Your task to perform on an android device: uninstall "AliExpress" Image 0: 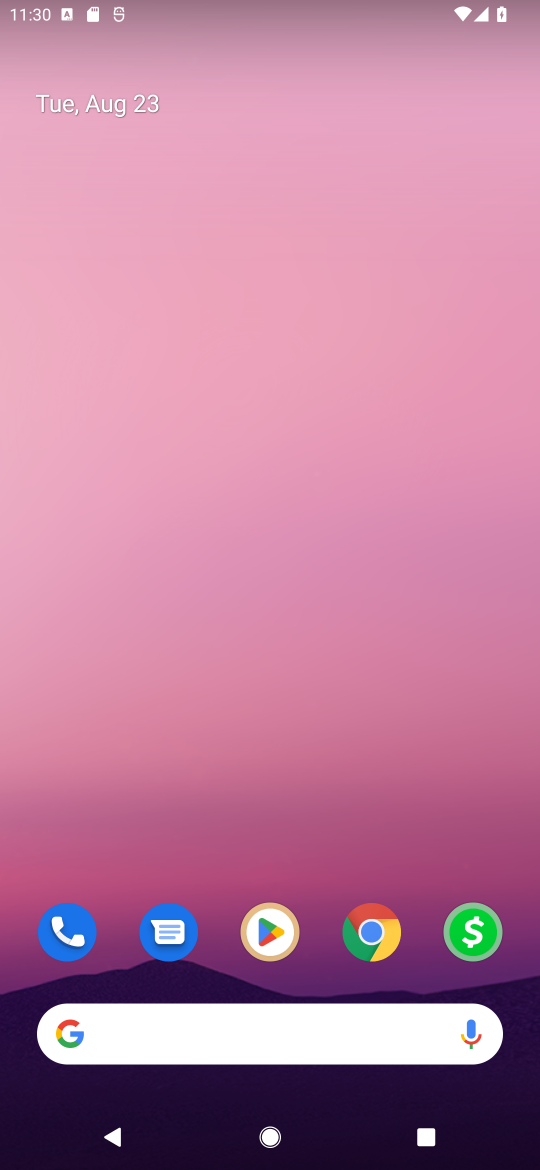
Step 0: click (257, 933)
Your task to perform on an android device: uninstall "AliExpress" Image 1: 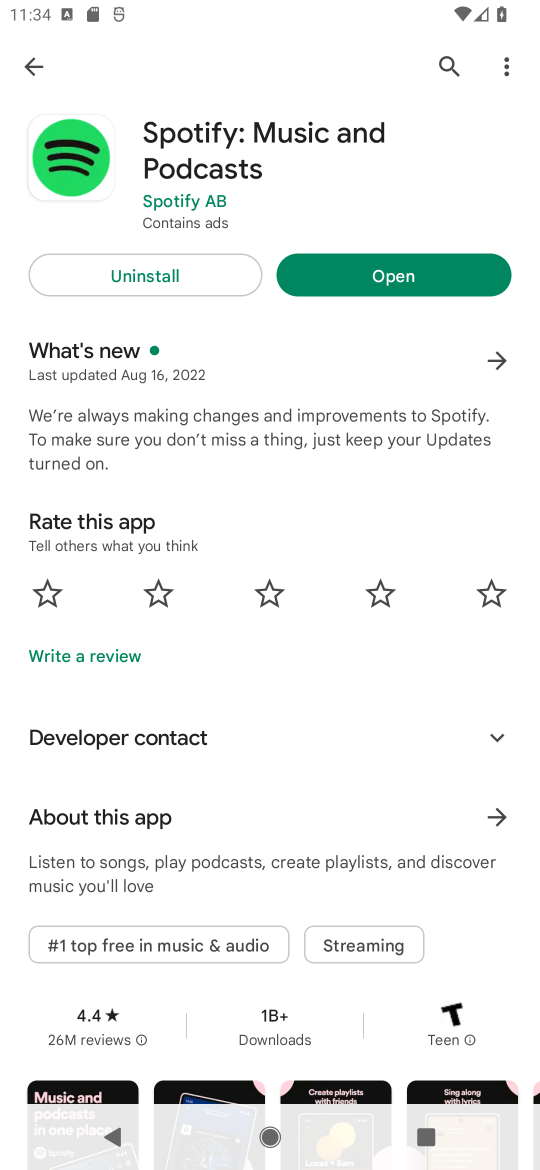
Step 1: click (455, 66)
Your task to perform on an android device: uninstall "AliExpress" Image 2: 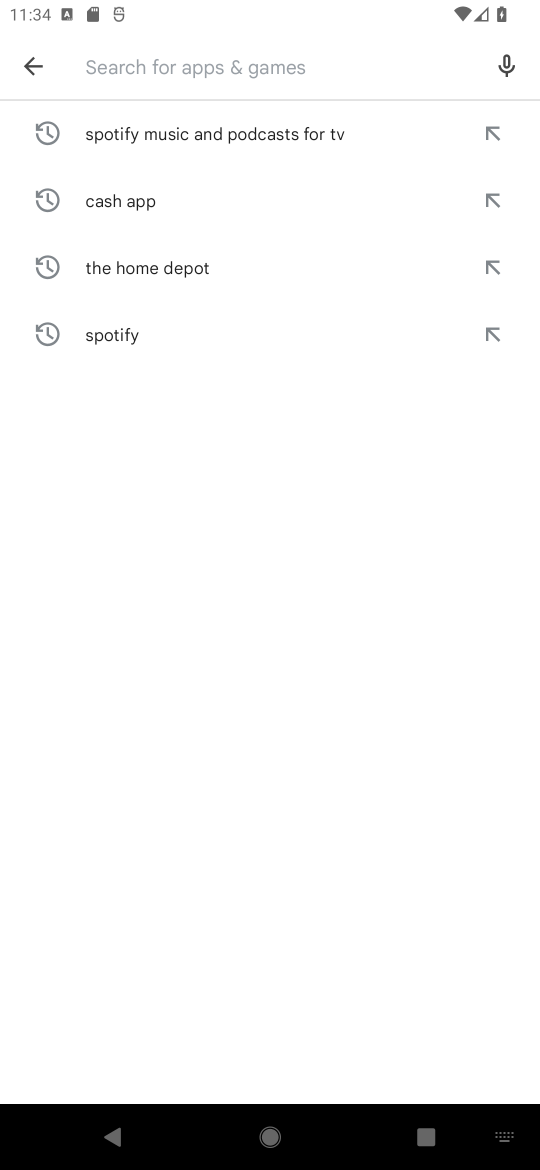
Step 2: type "aliexpress"
Your task to perform on an android device: uninstall "AliExpress" Image 3: 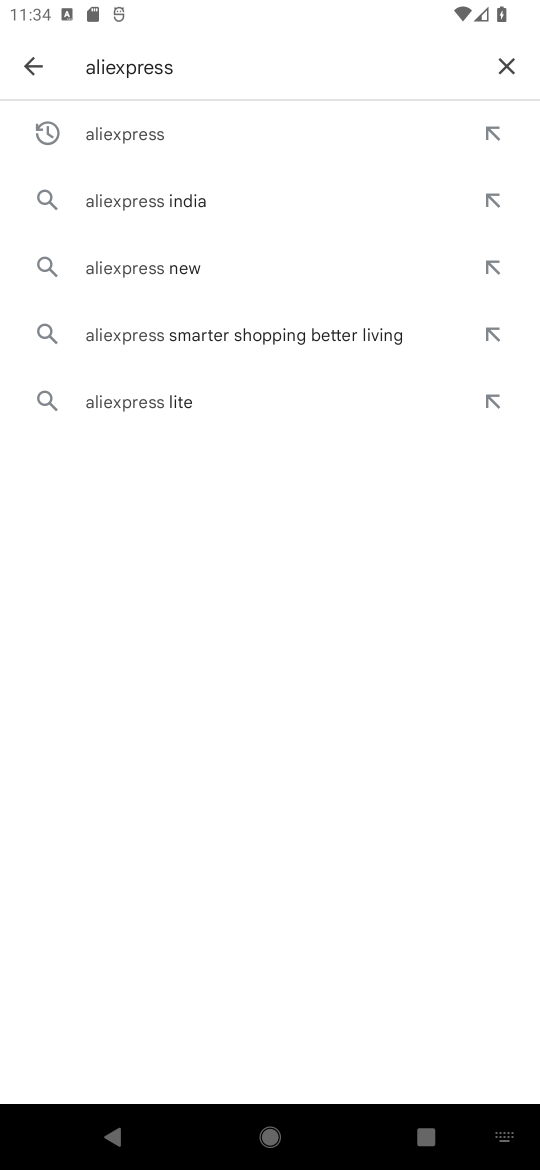
Step 3: click (126, 117)
Your task to perform on an android device: uninstall "AliExpress" Image 4: 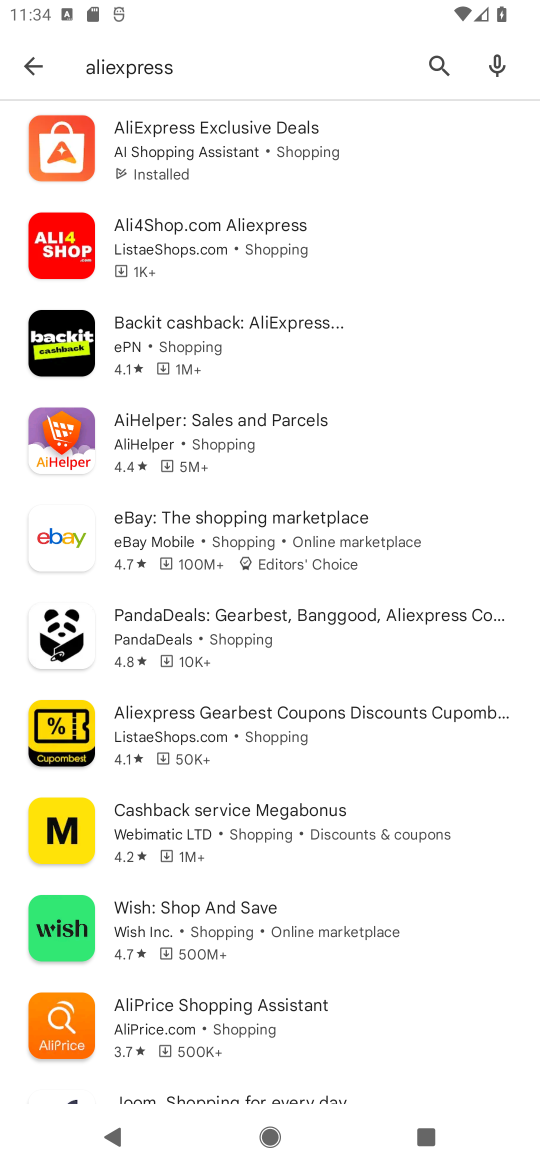
Step 4: click (348, 58)
Your task to perform on an android device: uninstall "AliExpress" Image 5: 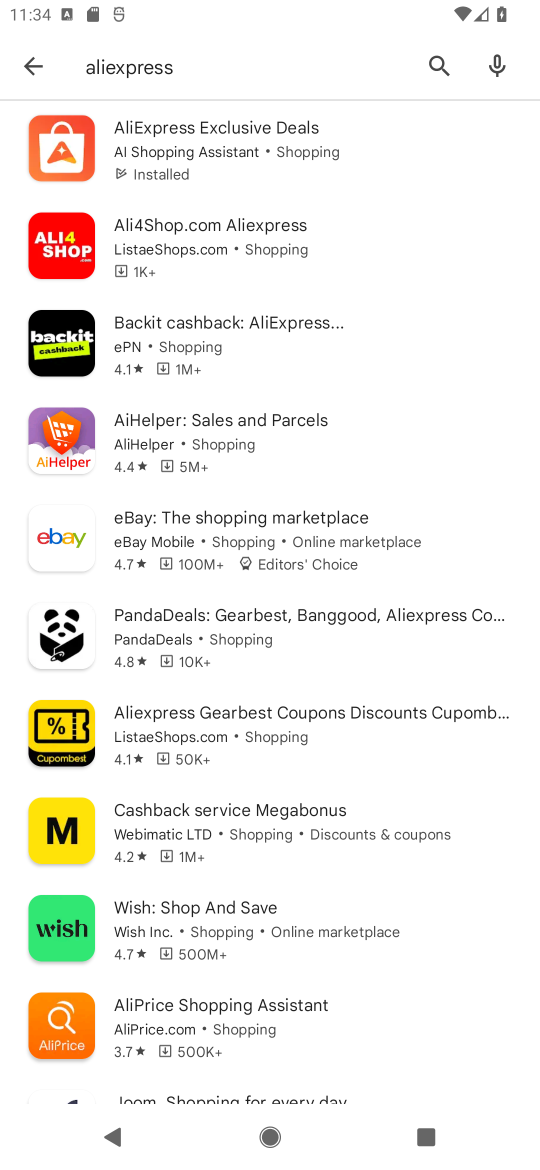
Step 5: click (224, 144)
Your task to perform on an android device: uninstall "AliExpress" Image 6: 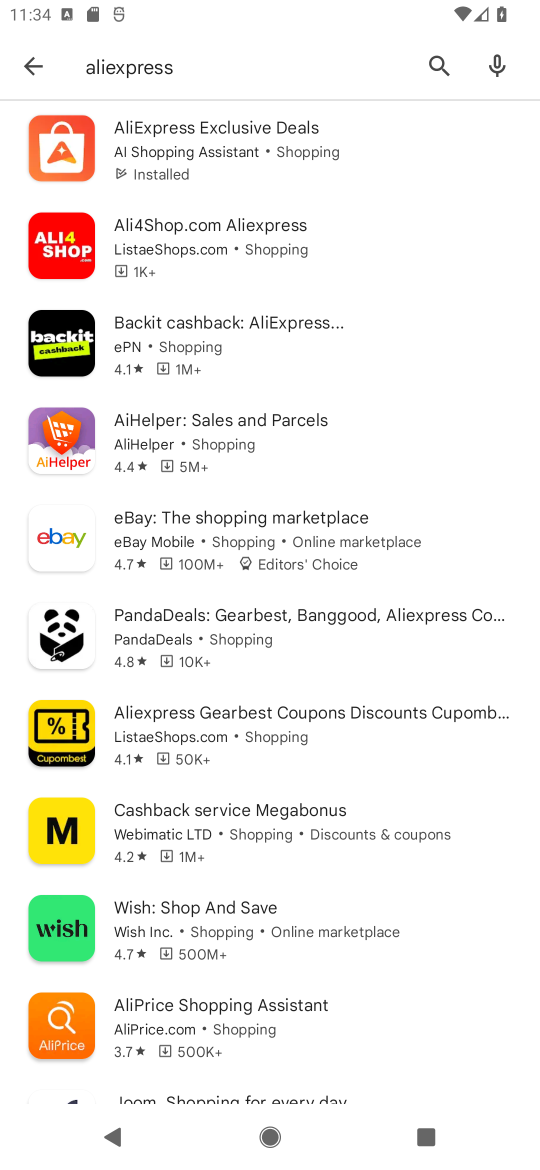
Step 6: click (224, 144)
Your task to perform on an android device: uninstall "AliExpress" Image 7: 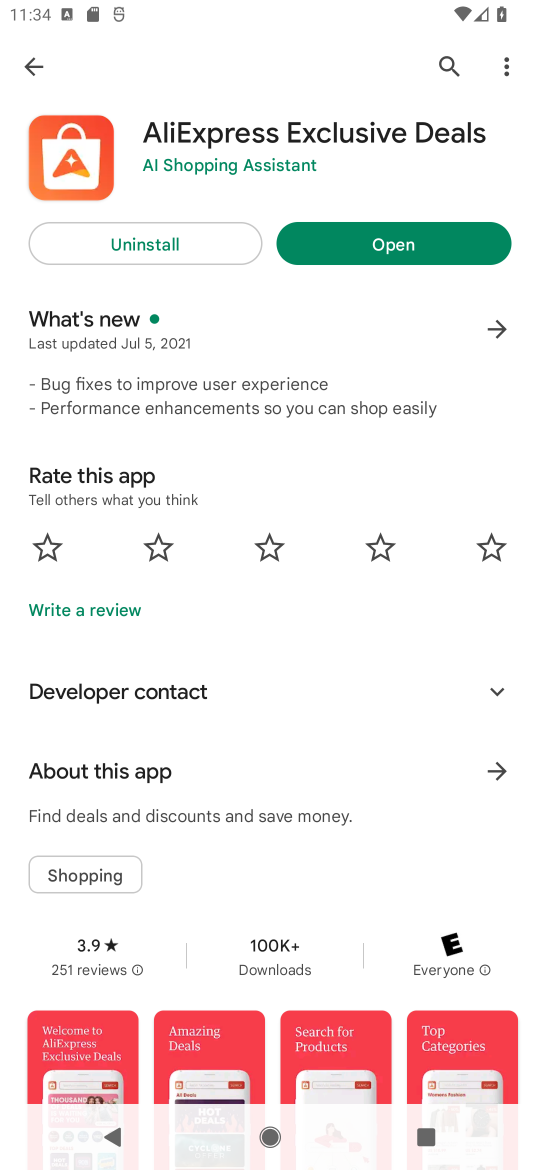
Step 7: click (182, 233)
Your task to perform on an android device: uninstall "AliExpress" Image 8: 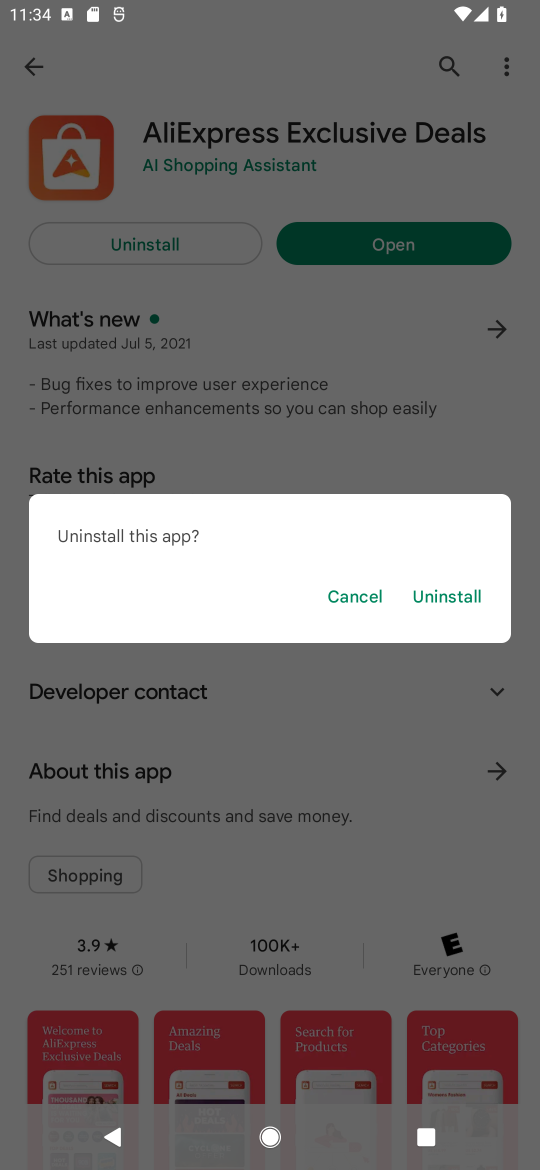
Step 8: click (431, 597)
Your task to perform on an android device: uninstall "AliExpress" Image 9: 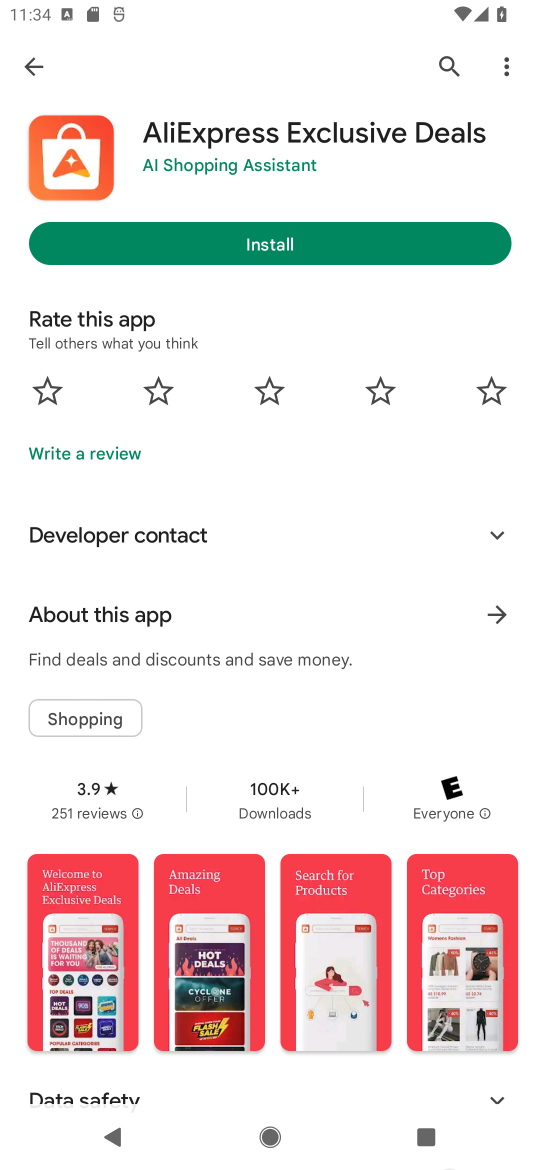
Step 9: task complete